Your task to perform on an android device: When is my next appointment? Image 0: 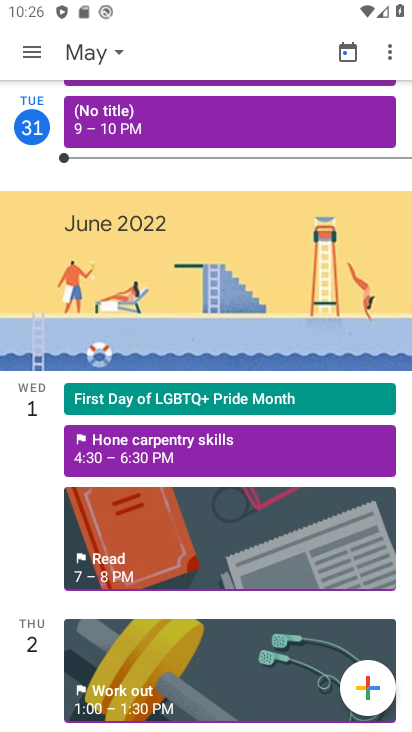
Step 0: task complete